Your task to perform on an android device: check out phone information Image 0: 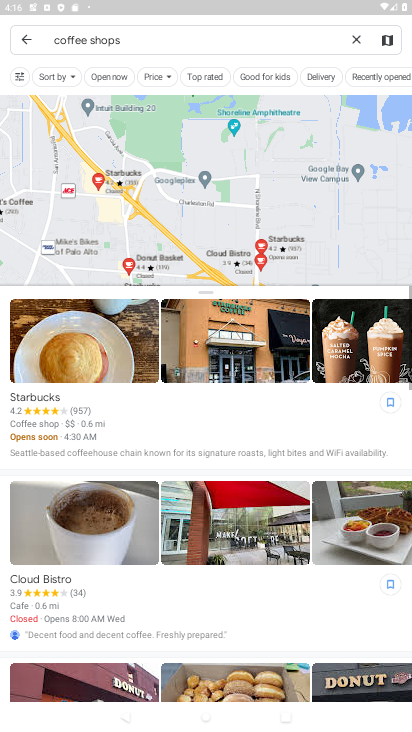
Step 0: press home button
Your task to perform on an android device: check out phone information Image 1: 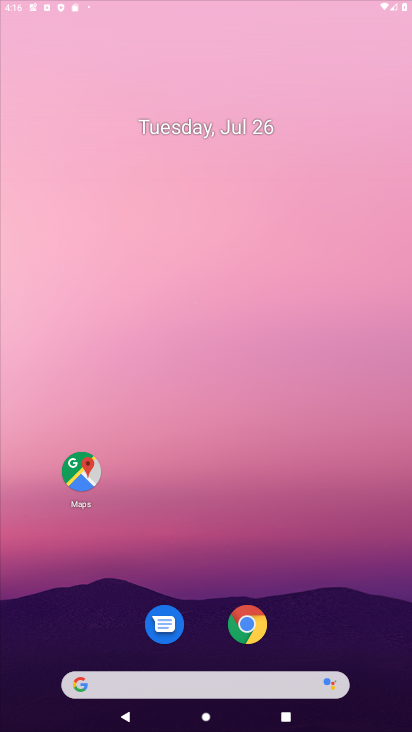
Step 1: drag from (278, 690) to (360, 39)
Your task to perform on an android device: check out phone information Image 2: 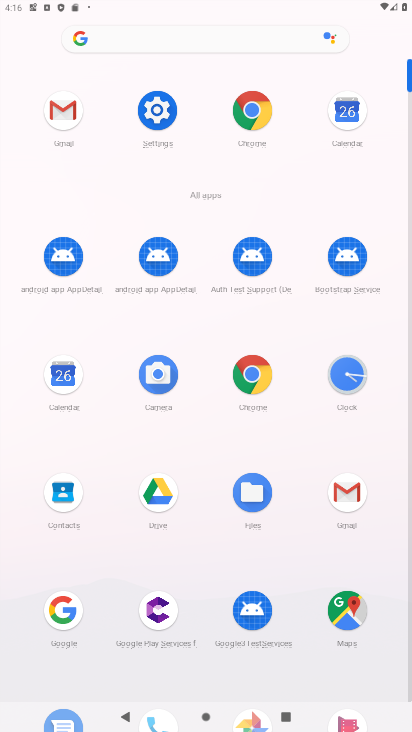
Step 2: click (166, 107)
Your task to perform on an android device: check out phone information Image 3: 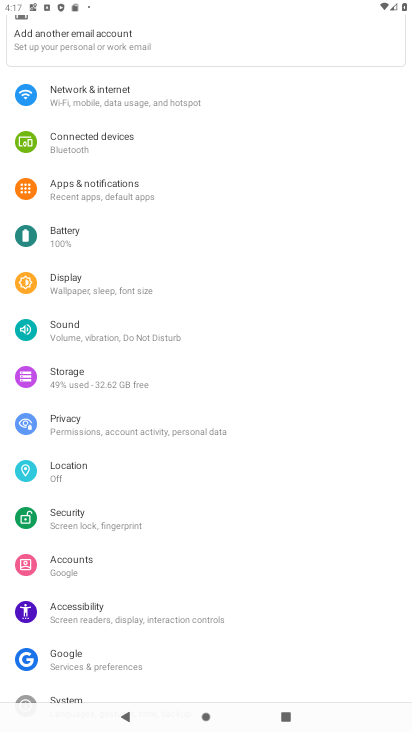
Step 3: drag from (75, 679) to (142, 102)
Your task to perform on an android device: check out phone information Image 4: 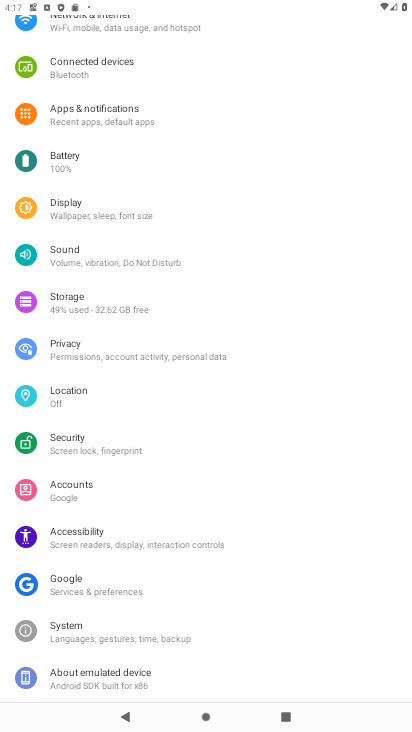
Step 4: click (108, 678)
Your task to perform on an android device: check out phone information Image 5: 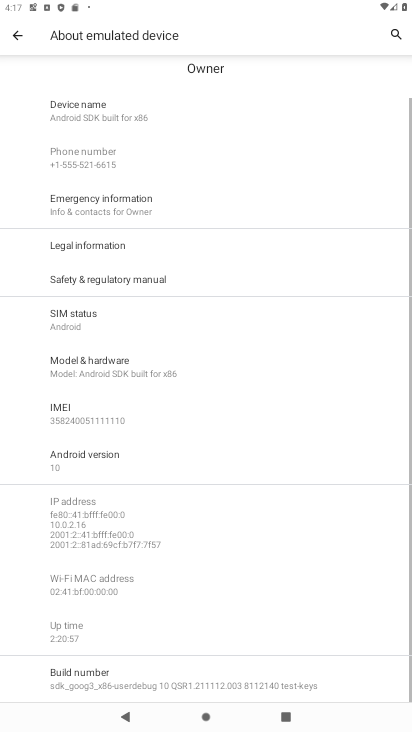
Step 5: task complete